Your task to perform on an android device: change the upload size in google photos Image 0: 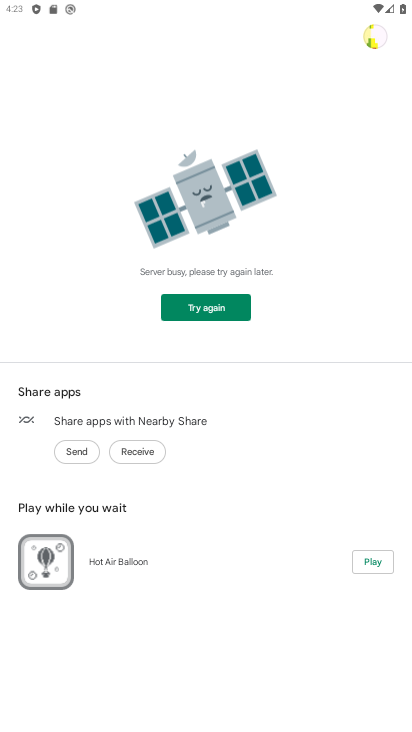
Step 0: press home button
Your task to perform on an android device: change the upload size in google photos Image 1: 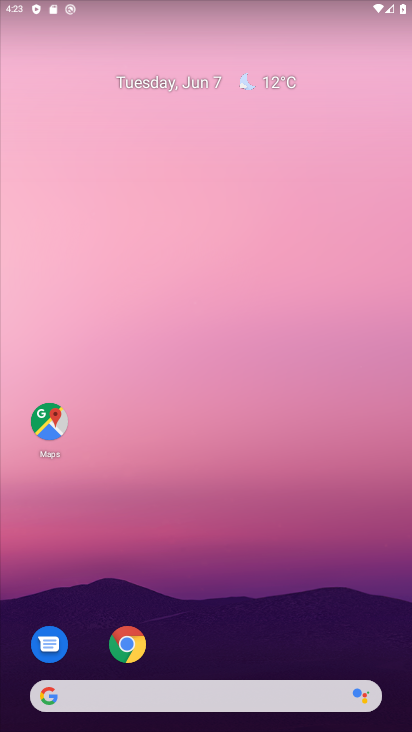
Step 1: drag from (248, 615) to (288, 93)
Your task to perform on an android device: change the upload size in google photos Image 2: 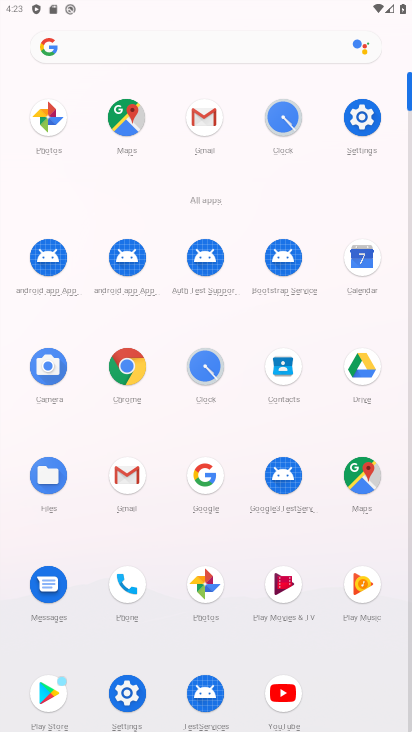
Step 2: click (41, 114)
Your task to perform on an android device: change the upload size in google photos Image 3: 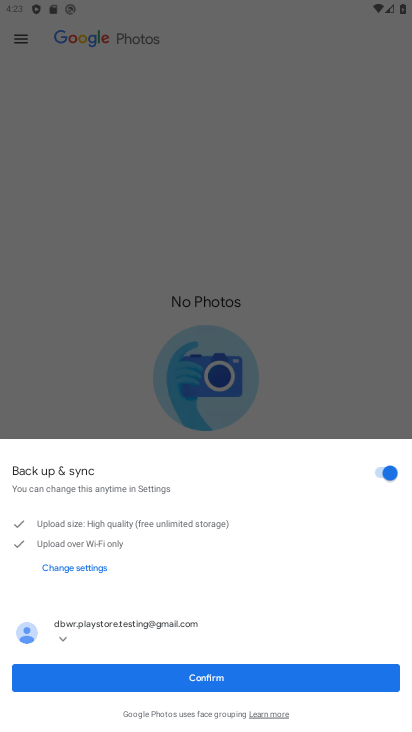
Step 3: click (125, 667)
Your task to perform on an android device: change the upload size in google photos Image 4: 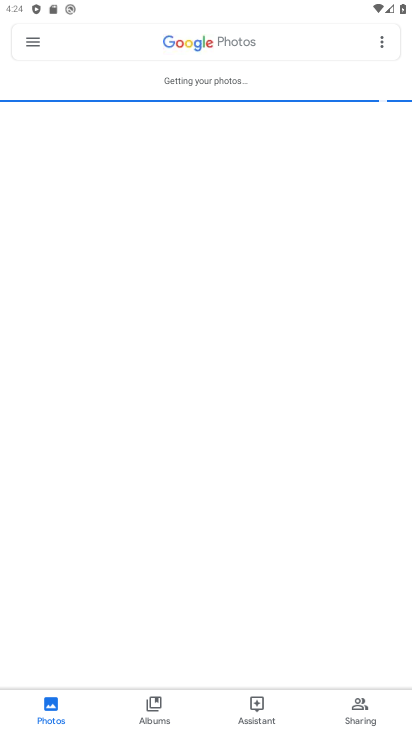
Step 4: click (34, 38)
Your task to perform on an android device: change the upload size in google photos Image 5: 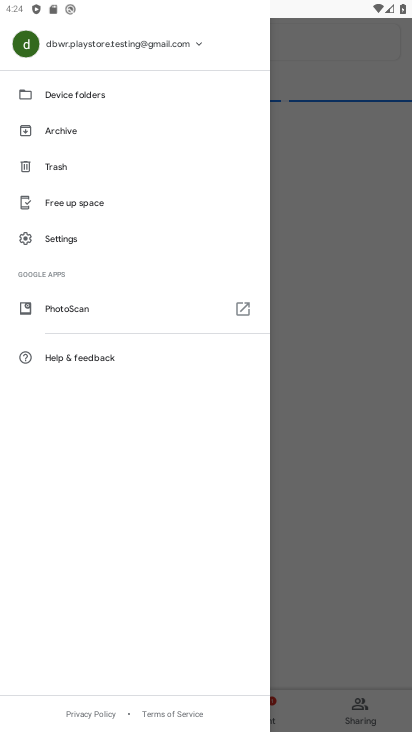
Step 5: click (67, 236)
Your task to perform on an android device: change the upload size in google photos Image 6: 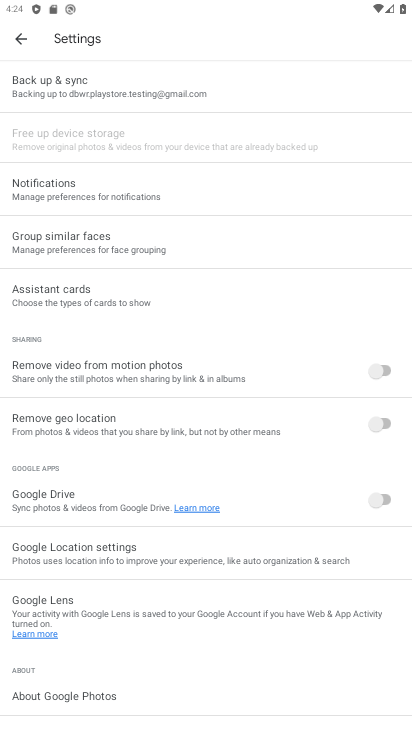
Step 6: click (127, 83)
Your task to perform on an android device: change the upload size in google photos Image 7: 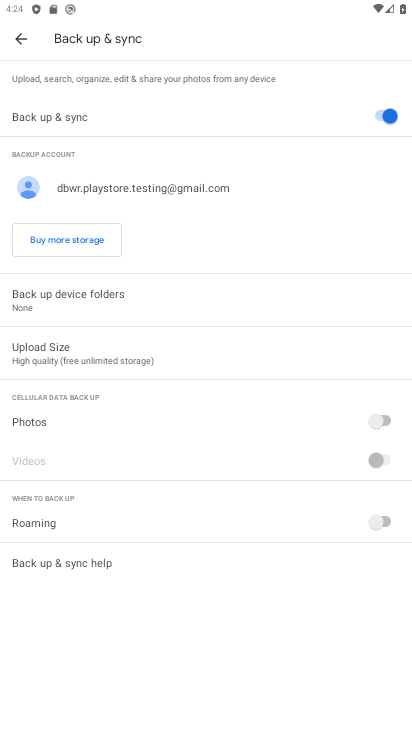
Step 7: click (121, 357)
Your task to perform on an android device: change the upload size in google photos Image 8: 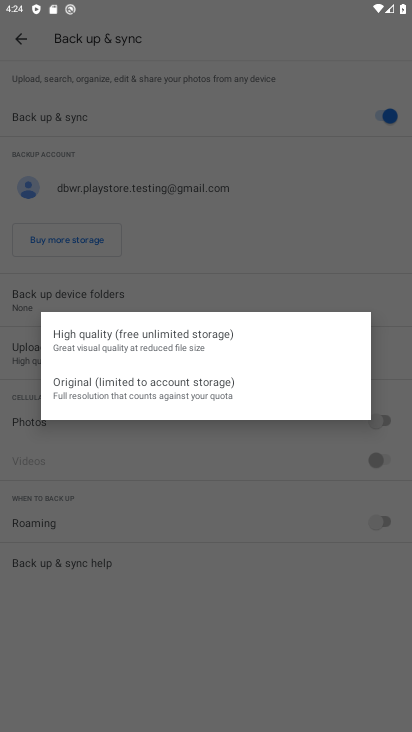
Step 8: click (129, 391)
Your task to perform on an android device: change the upload size in google photos Image 9: 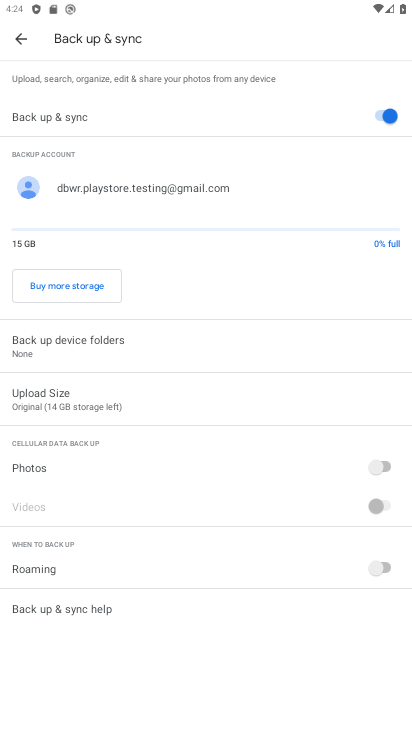
Step 9: task complete